Your task to perform on an android device: Empty the shopping cart on walmart.com. Search for "razer blade" on walmart.com, select the first entry, add it to the cart, then select checkout. Image 0: 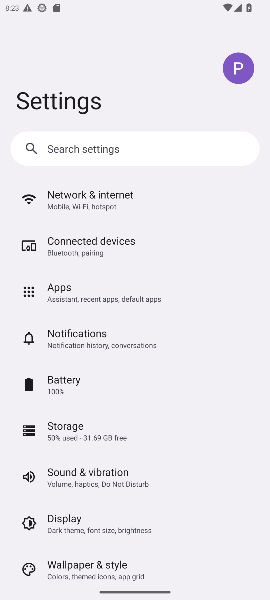
Step 0: press home button
Your task to perform on an android device: Empty the shopping cart on walmart.com. Search for "razer blade" on walmart.com, select the first entry, add it to the cart, then select checkout. Image 1: 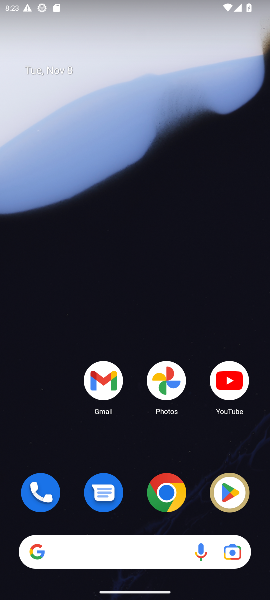
Step 1: click (175, 490)
Your task to perform on an android device: Empty the shopping cart on walmart.com. Search for "razer blade" on walmart.com, select the first entry, add it to the cart, then select checkout. Image 2: 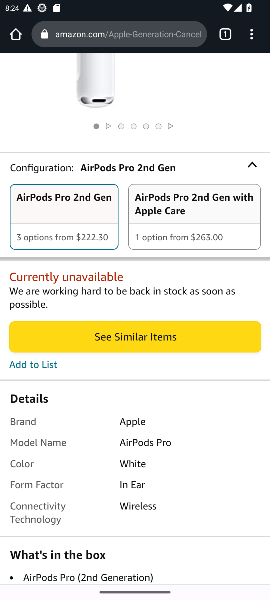
Step 2: click (137, 33)
Your task to perform on an android device: Empty the shopping cart on walmart.com. Search for "razer blade" on walmart.com, select the first entry, add it to the cart, then select checkout. Image 3: 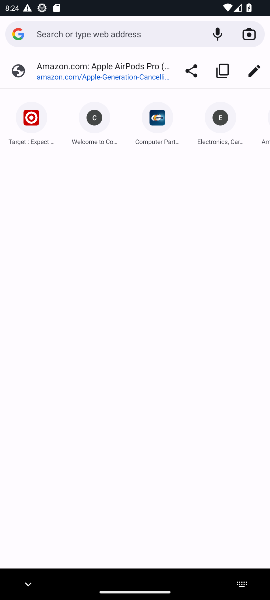
Step 3: type "walmart.com"
Your task to perform on an android device: Empty the shopping cart on walmart.com. Search for "razer blade" on walmart.com, select the first entry, add it to the cart, then select checkout. Image 4: 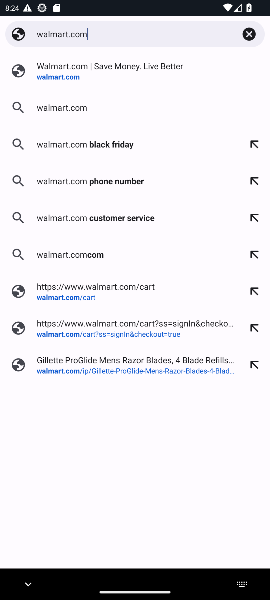
Step 4: click (81, 109)
Your task to perform on an android device: Empty the shopping cart on walmart.com. Search for "razer blade" on walmart.com, select the first entry, add it to the cart, then select checkout. Image 5: 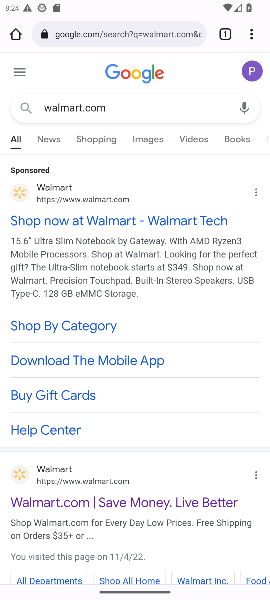
Step 5: click (79, 195)
Your task to perform on an android device: Empty the shopping cart on walmart.com. Search for "razer blade" on walmart.com, select the first entry, add it to the cart, then select checkout. Image 6: 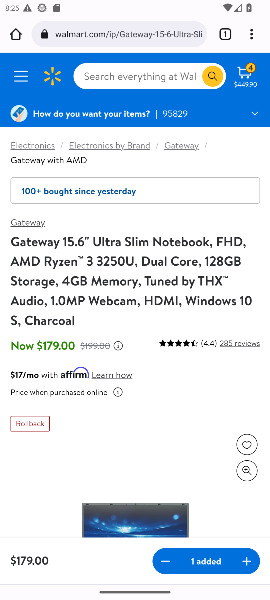
Step 6: click (242, 81)
Your task to perform on an android device: Empty the shopping cart on walmart.com. Search for "razer blade" on walmart.com, select the first entry, add it to the cart, then select checkout. Image 7: 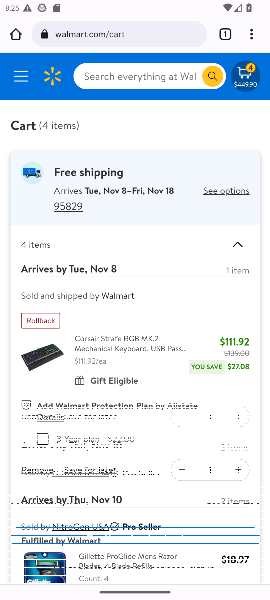
Step 7: drag from (152, 355) to (146, 181)
Your task to perform on an android device: Empty the shopping cart on walmart.com. Search for "razer blade" on walmart.com, select the first entry, add it to the cart, then select checkout. Image 8: 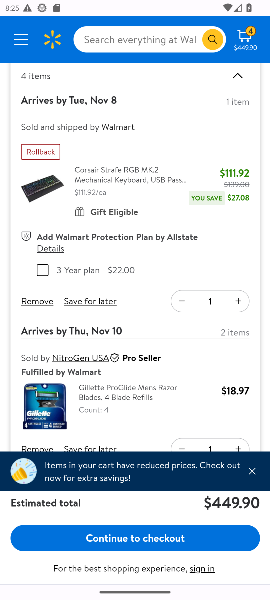
Step 8: click (37, 301)
Your task to perform on an android device: Empty the shopping cart on walmart.com. Search for "razer blade" on walmart.com, select the first entry, add it to the cart, then select checkout. Image 9: 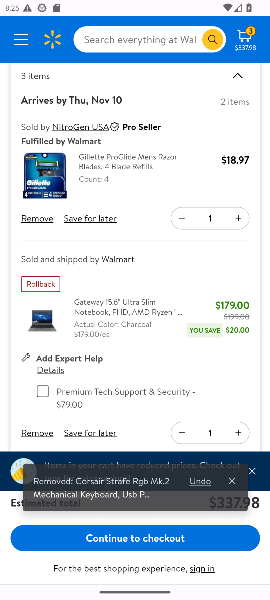
Step 9: drag from (121, 354) to (125, 231)
Your task to perform on an android device: Empty the shopping cart on walmart.com. Search for "razer blade" on walmart.com, select the first entry, add it to the cart, then select checkout. Image 10: 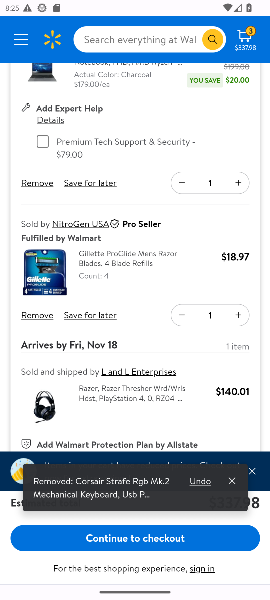
Step 10: drag from (124, 230) to (121, 328)
Your task to perform on an android device: Empty the shopping cart on walmart.com. Search for "razer blade" on walmart.com, select the first entry, add it to the cart, then select checkout. Image 11: 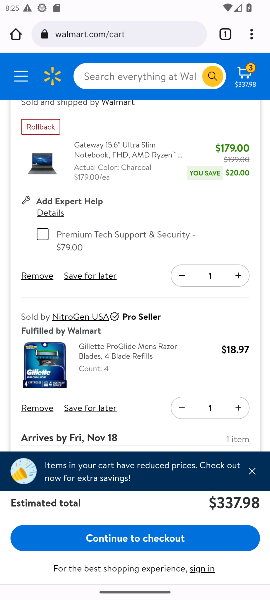
Step 11: click (44, 276)
Your task to perform on an android device: Empty the shopping cart on walmart.com. Search for "razer blade" on walmart.com, select the first entry, add it to the cart, then select checkout. Image 12: 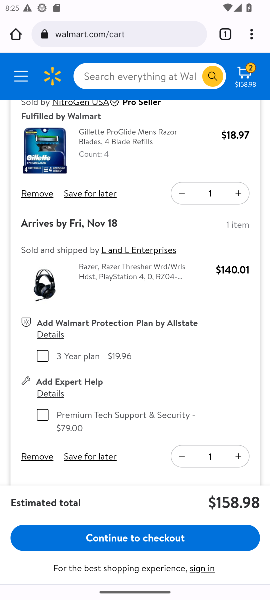
Step 12: click (38, 194)
Your task to perform on an android device: Empty the shopping cart on walmart.com. Search for "razer blade" on walmart.com, select the first entry, add it to the cart, then select checkout. Image 13: 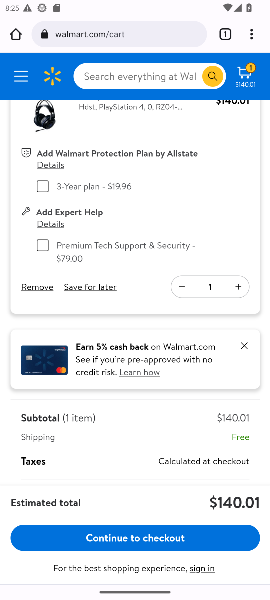
Step 13: click (42, 289)
Your task to perform on an android device: Empty the shopping cart on walmart.com. Search for "razer blade" on walmart.com, select the first entry, add it to the cart, then select checkout. Image 14: 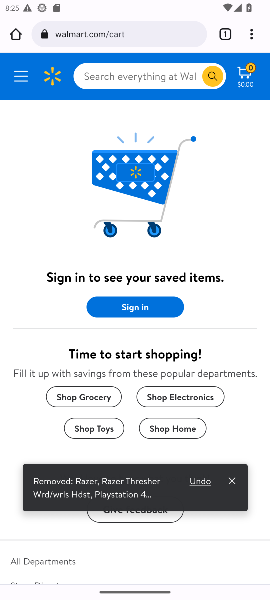
Step 14: click (140, 71)
Your task to perform on an android device: Empty the shopping cart on walmart.com. Search for "razer blade" on walmart.com, select the first entry, add it to the cart, then select checkout. Image 15: 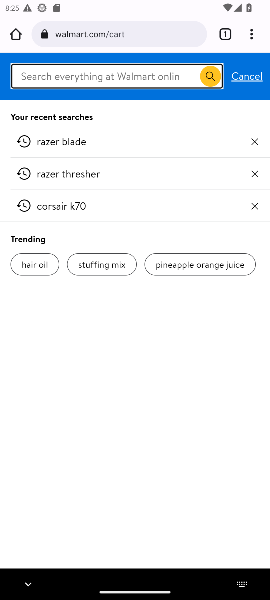
Step 15: type "razer blade"
Your task to perform on an android device: Empty the shopping cart on walmart.com. Search for "razer blade" on walmart.com, select the first entry, add it to the cart, then select checkout. Image 16: 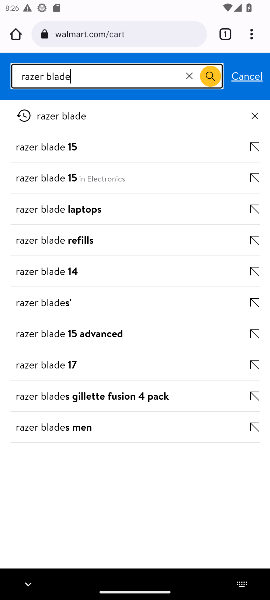
Step 16: click (70, 116)
Your task to perform on an android device: Empty the shopping cart on walmart.com. Search for "razer blade" on walmart.com, select the first entry, add it to the cart, then select checkout. Image 17: 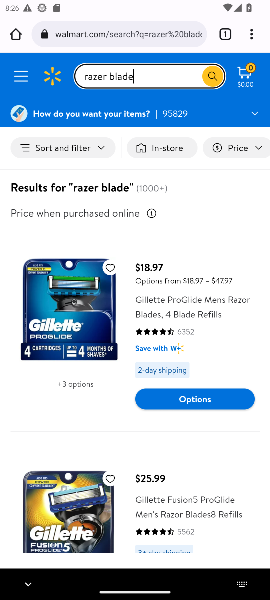
Step 17: drag from (74, 464) to (137, 207)
Your task to perform on an android device: Empty the shopping cart on walmart.com. Search for "razer blade" on walmart.com, select the first entry, add it to the cart, then select checkout. Image 18: 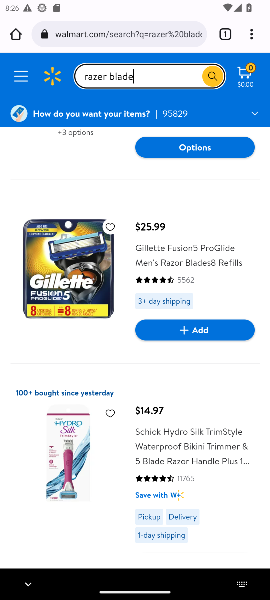
Step 18: drag from (72, 478) to (117, 226)
Your task to perform on an android device: Empty the shopping cart on walmart.com. Search for "razer blade" on walmart.com, select the first entry, add it to the cart, then select checkout. Image 19: 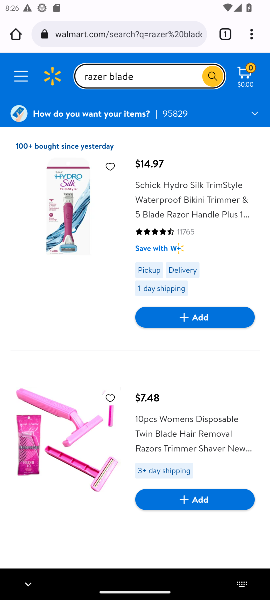
Step 19: drag from (75, 461) to (97, 186)
Your task to perform on an android device: Empty the shopping cart on walmart.com. Search for "razer blade" on walmart.com, select the first entry, add it to the cart, then select checkout. Image 20: 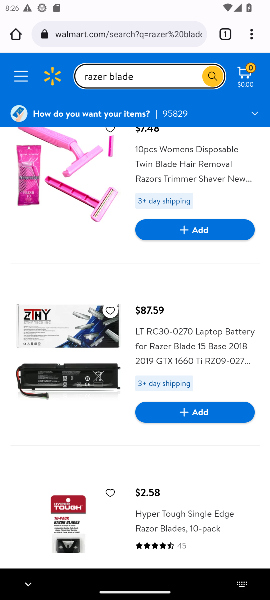
Step 20: click (75, 340)
Your task to perform on an android device: Empty the shopping cart on walmart.com. Search for "razer blade" on walmart.com, select the first entry, add it to the cart, then select checkout. Image 21: 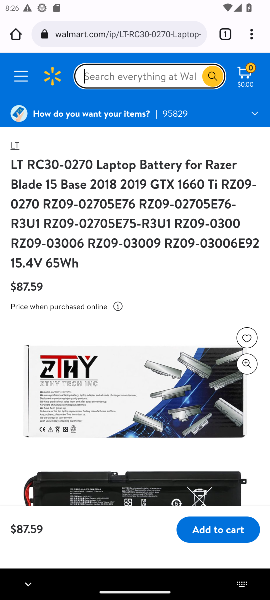
Step 21: click (226, 523)
Your task to perform on an android device: Empty the shopping cart on walmart.com. Search for "razer blade" on walmart.com, select the first entry, add it to the cart, then select checkout. Image 22: 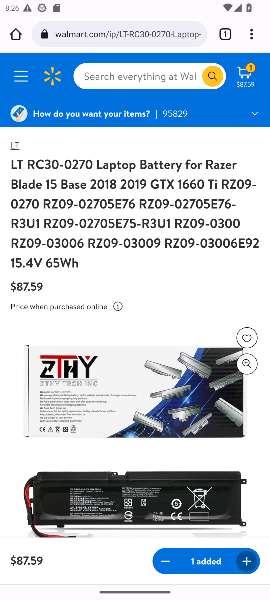
Step 22: click (236, 82)
Your task to perform on an android device: Empty the shopping cart on walmart.com. Search for "razer blade" on walmart.com, select the first entry, add it to the cart, then select checkout. Image 23: 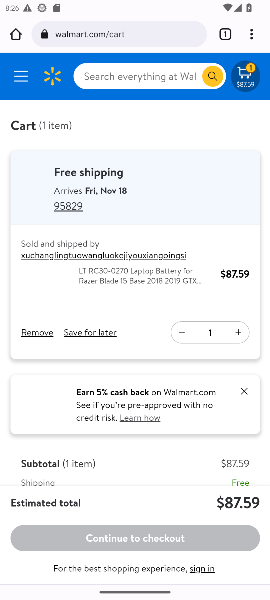
Step 23: click (147, 536)
Your task to perform on an android device: Empty the shopping cart on walmart.com. Search for "razer blade" on walmart.com, select the first entry, add it to the cart, then select checkout. Image 24: 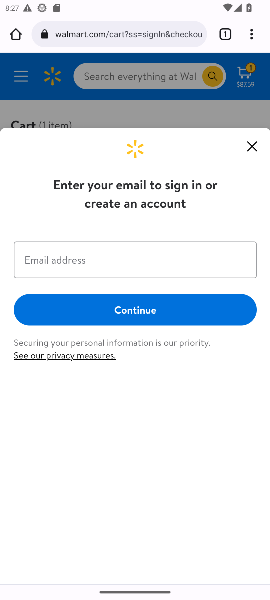
Step 24: task complete